Your task to perform on an android device: open app "Airtel Thanks" (install if not already installed), go to login, and select forgot password Image 0: 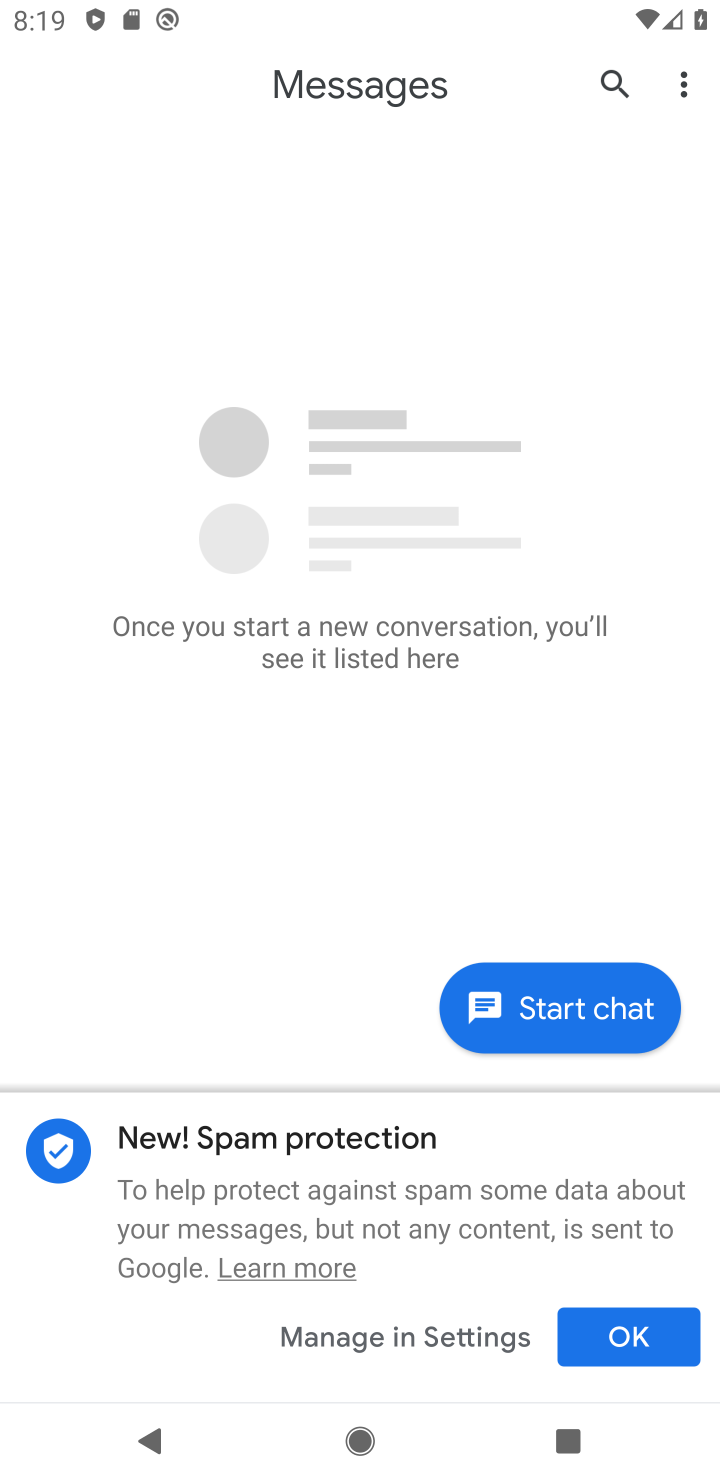
Step 0: press back button
Your task to perform on an android device: open app "Airtel Thanks" (install if not already installed), go to login, and select forgot password Image 1: 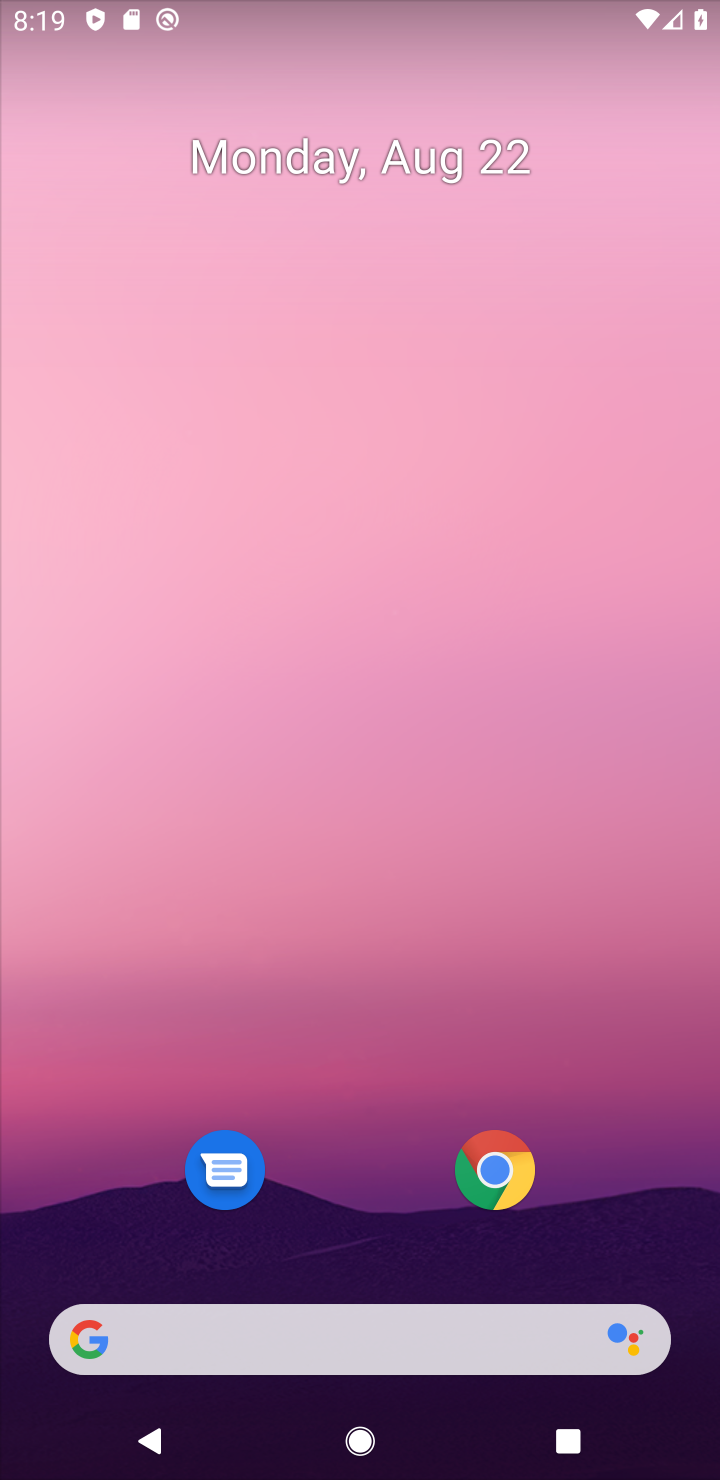
Step 1: drag from (378, 1154) to (618, 43)
Your task to perform on an android device: open app "Airtel Thanks" (install if not already installed), go to login, and select forgot password Image 2: 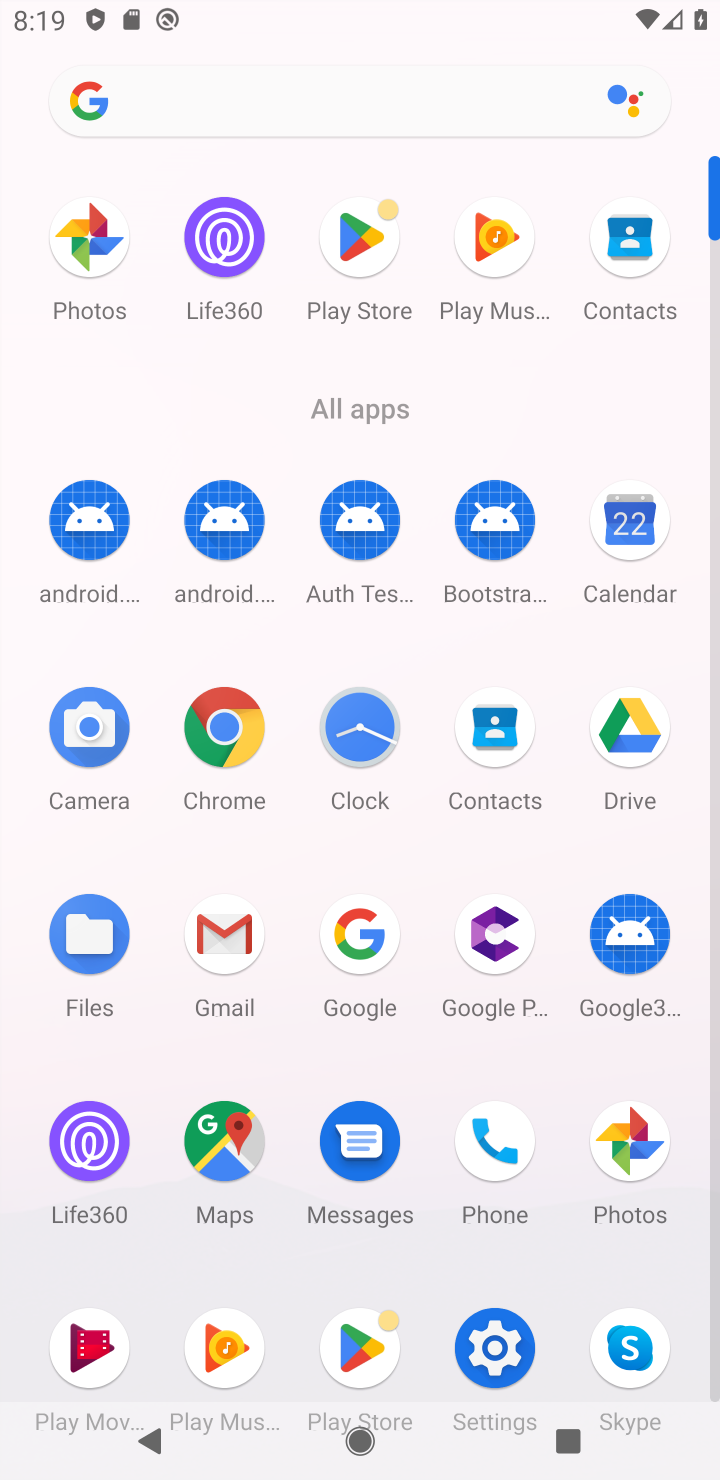
Step 2: click (351, 237)
Your task to perform on an android device: open app "Airtel Thanks" (install if not already installed), go to login, and select forgot password Image 3: 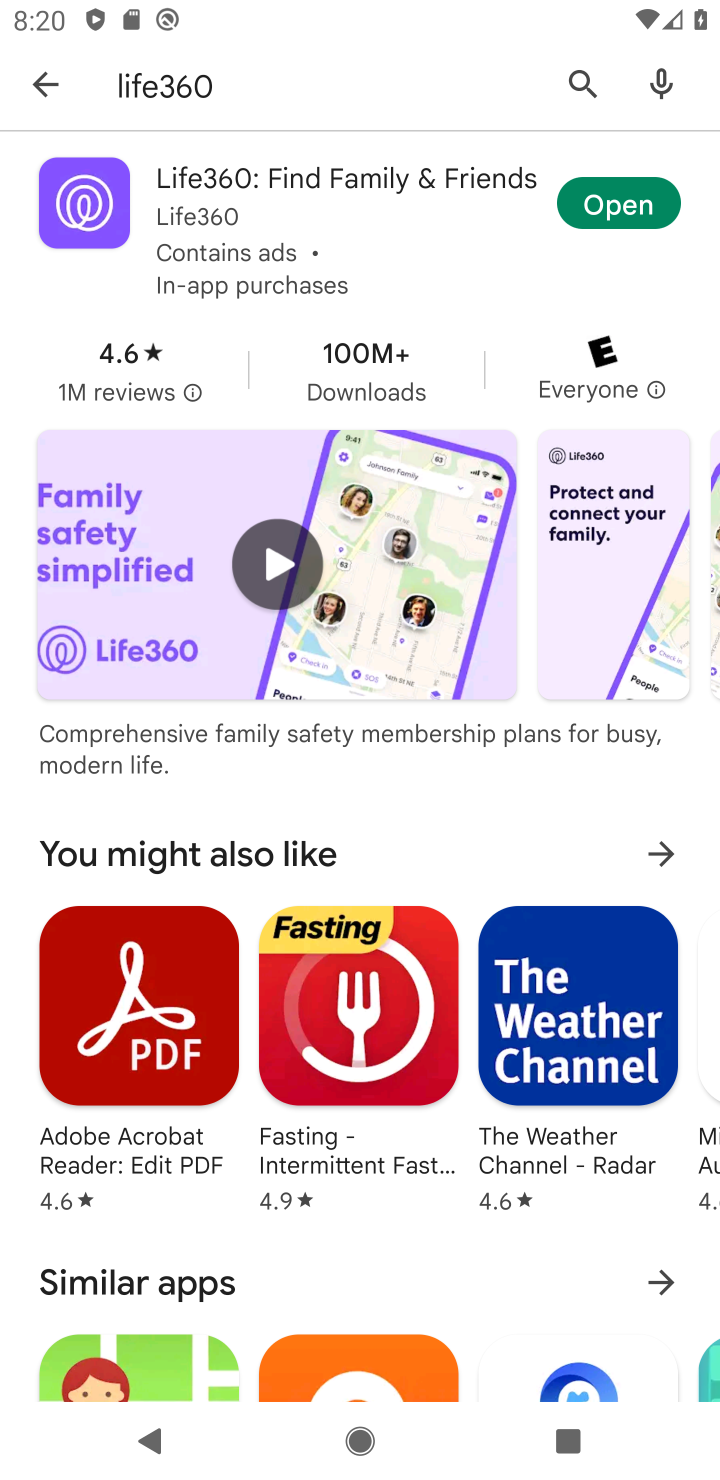
Step 3: click (587, 75)
Your task to perform on an android device: open app "Airtel Thanks" (install if not already installed), go to login, and select forgot password Image 4: 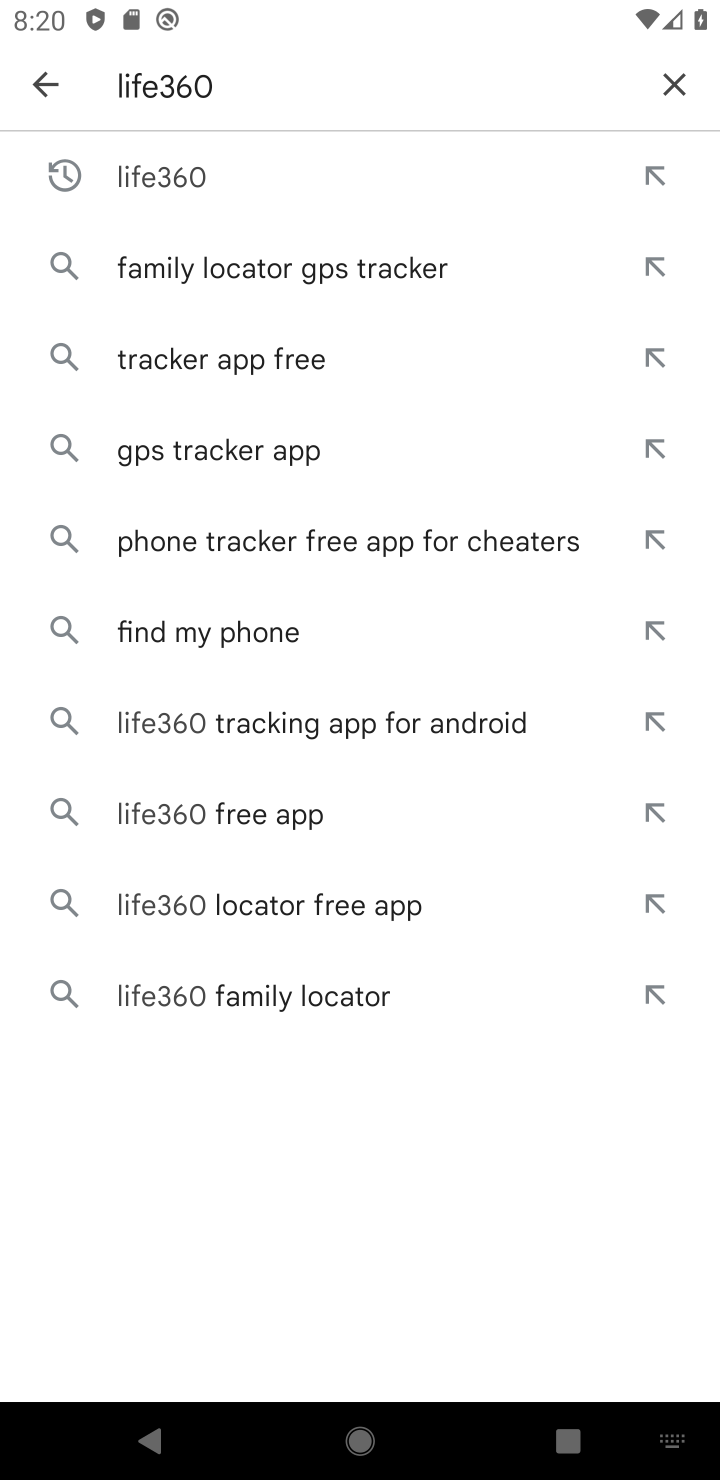
Step 4: click (685, 75)
Your task to perform on an android device: open app "Airtel Thanks" (install if not already installed), go to login, and select forgot password Image 5: 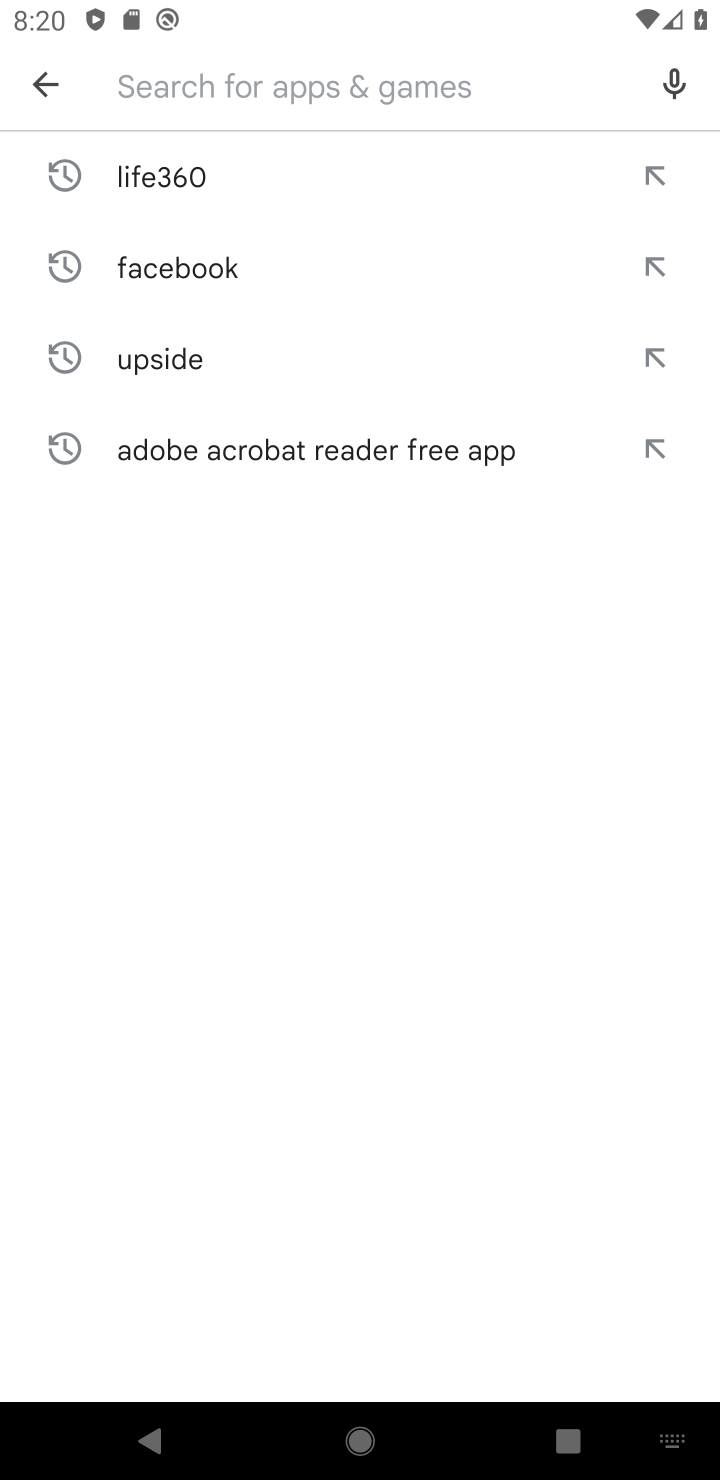
Step 5: click (284, 95)
Your task to perform on an android device: open app "Airtel Thanks" (install if not already installed), go to login, and select forgot password Image 6: 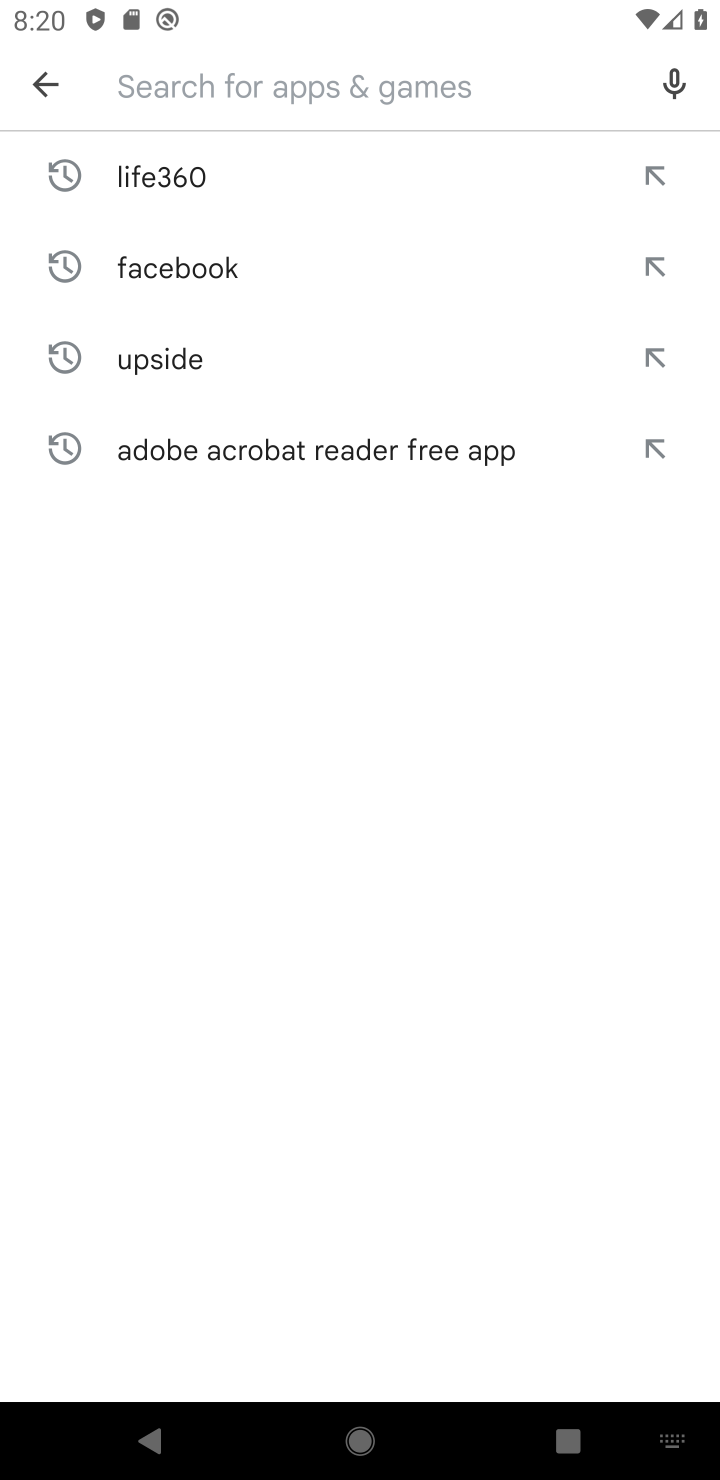
Step 6: type "Airtel Thanks"
Your task to perform on an android device: open app "Airtel Thanks" (install if not already installed), go to login, and select forgot password Image 7: 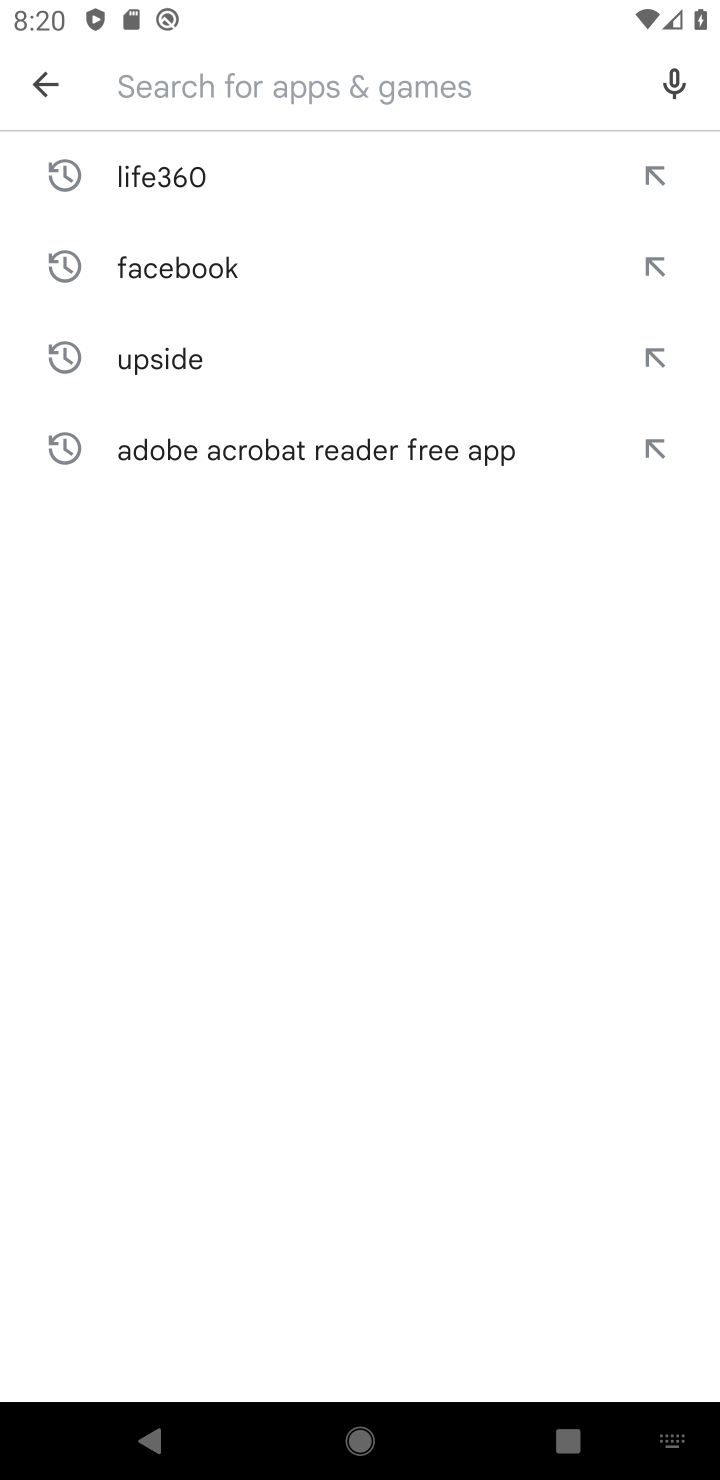
Step 7: click (326, 890)
Your task to perform on an android device: open app "Airtel Thanks" (install if not already installed), go to login, and select forgot password Image 8: 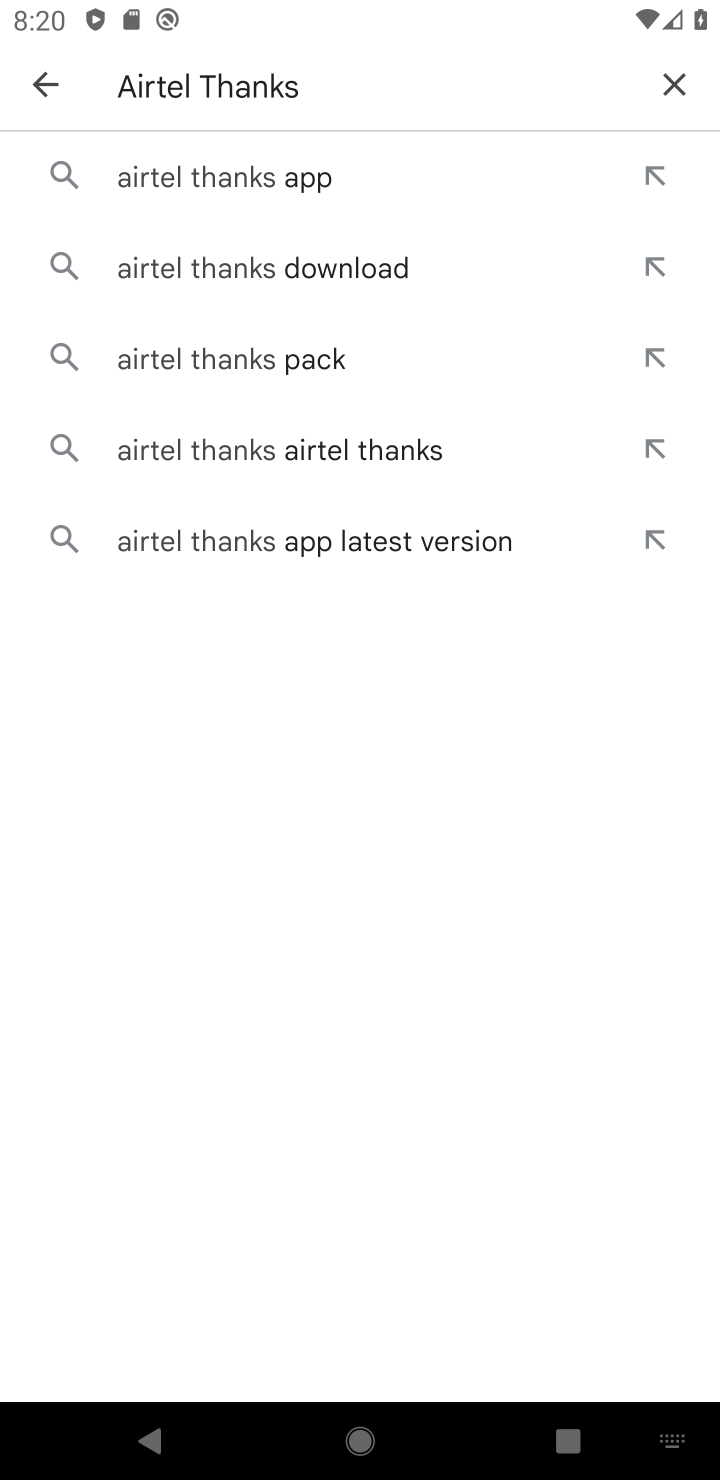
Step 8: click (328, 181)
Your task to perform on an android device: open app "Airtel Thanks" (install if not already installed), go to login, and select forgot password Image 9: 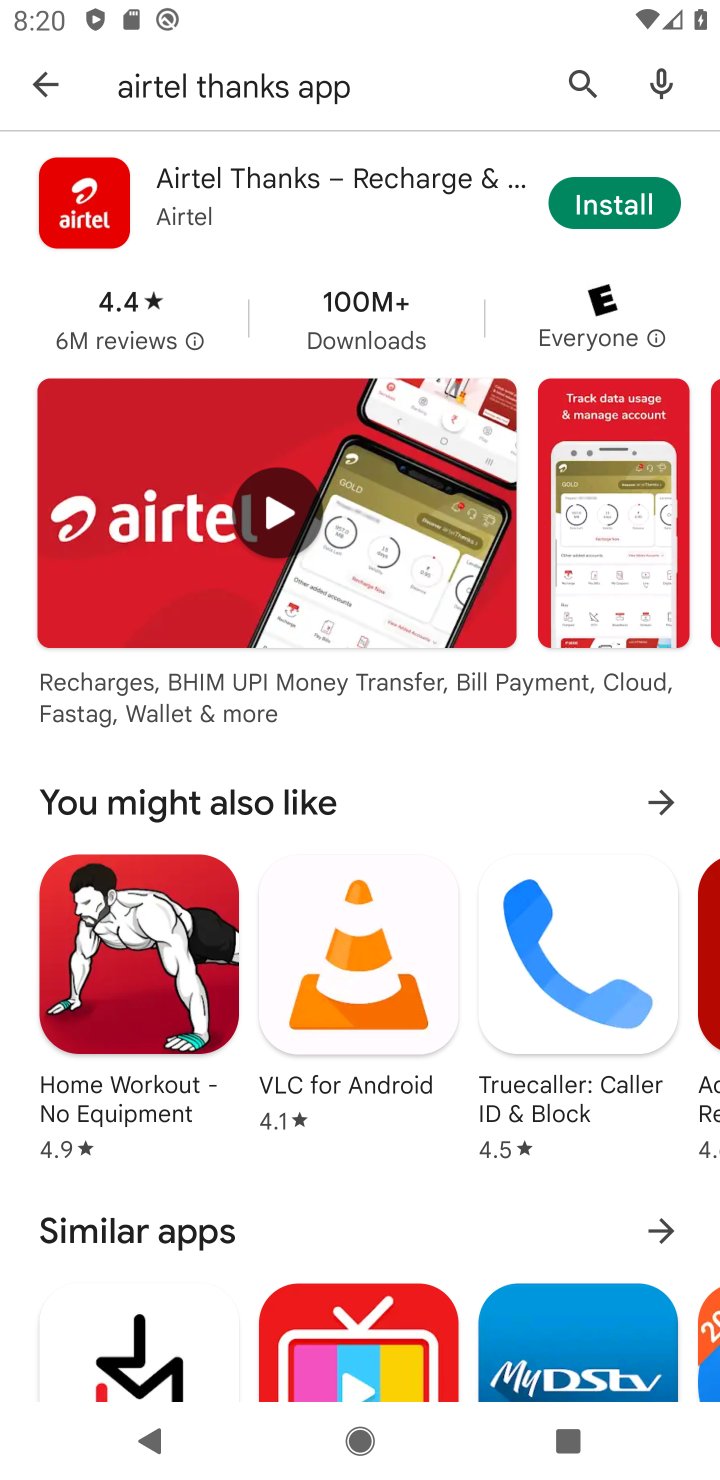
Step 9: click (601, 212)
Your task to perform on an android device: open app "Airtel Thanks" (install if not already installed), go to login, and select forgot password Image 10: 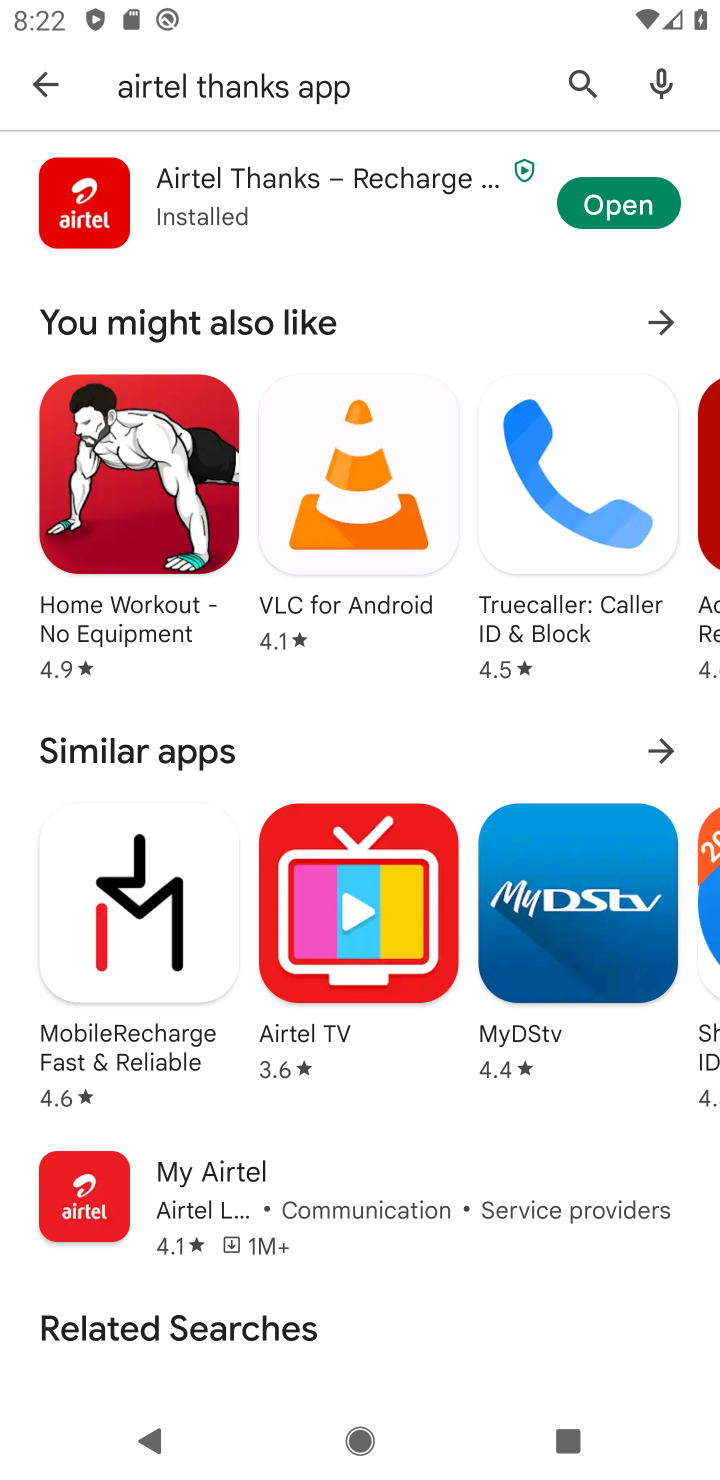
Step 10: click (651, 194)
Your task to perform on an android device: open app "Airtel Thanks" (install if not already installed), go to login, and select forgot password Image 11: 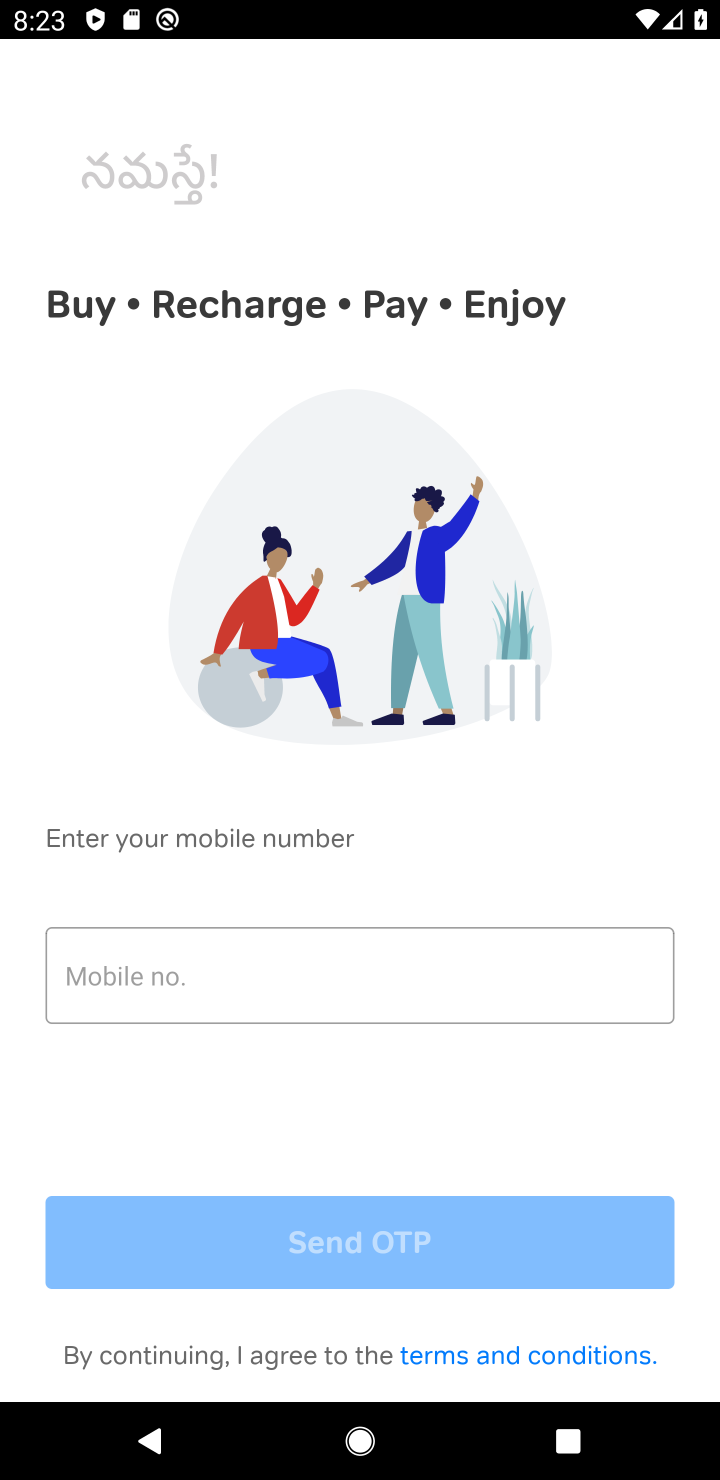
Step 11: task complete